Your task to perform on an android device: Add "razer kraken" to the cart on newegg.com Image 0: 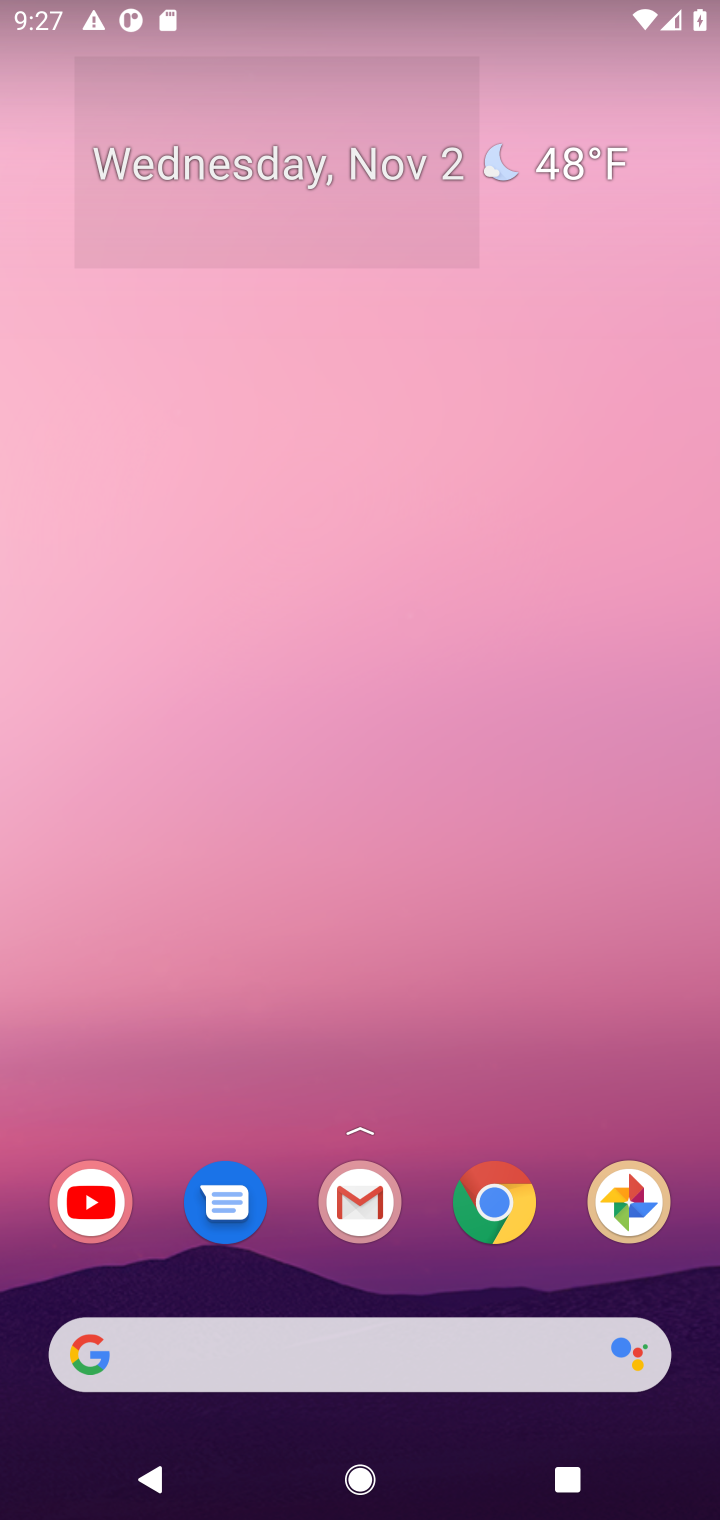
Step 0: drag from (410, 1310) to (575, 221)
Your task to perform on an android device: Add "razer kraken" to the cart on newegg.com Image 1: 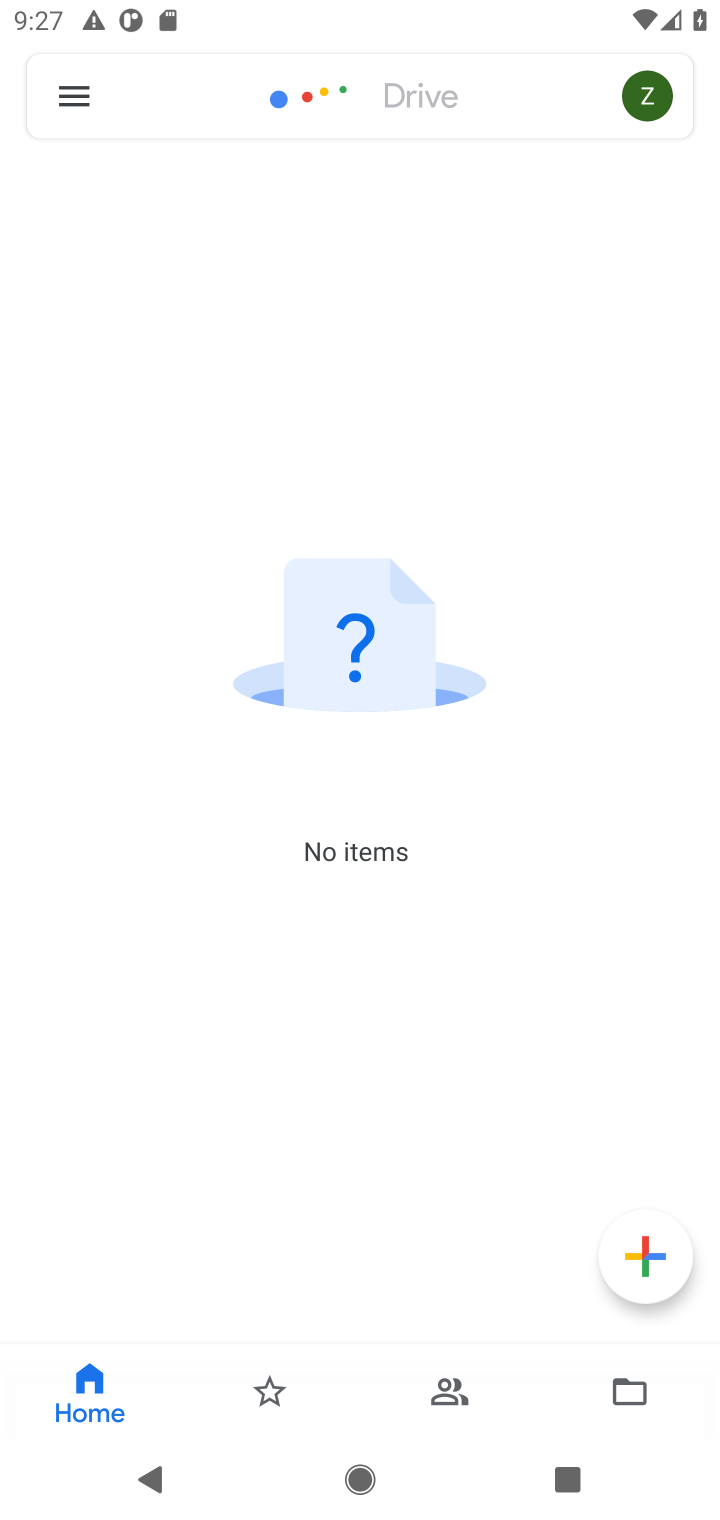
Step 1: press home button
Your task to perform on an android device: Add "razer kraken" to the cart on newegg.com Image 2: 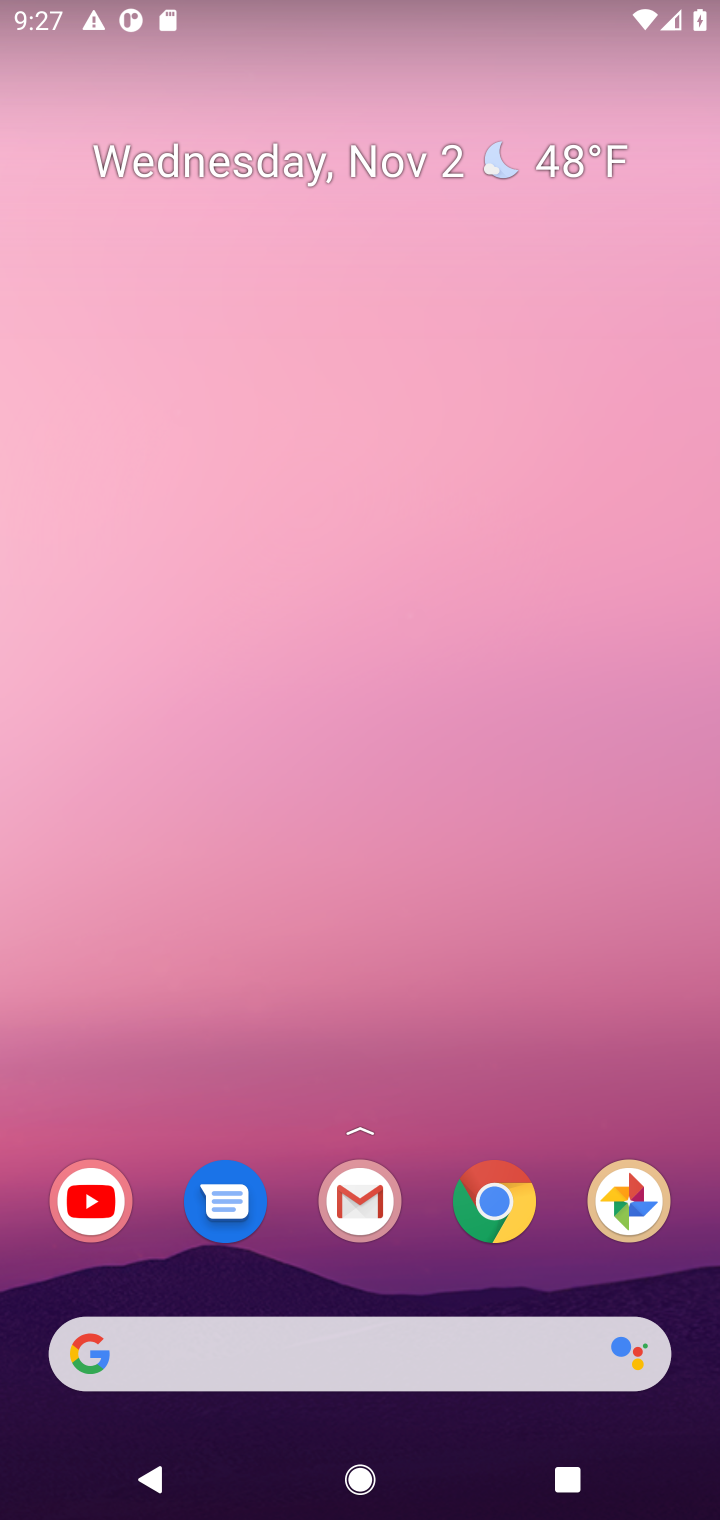
Step 2: drag from (442, 1255) to (385, 233)
Your task to perform on an android device: Add "razer kraken" to the cart on newegg.com Image 3: 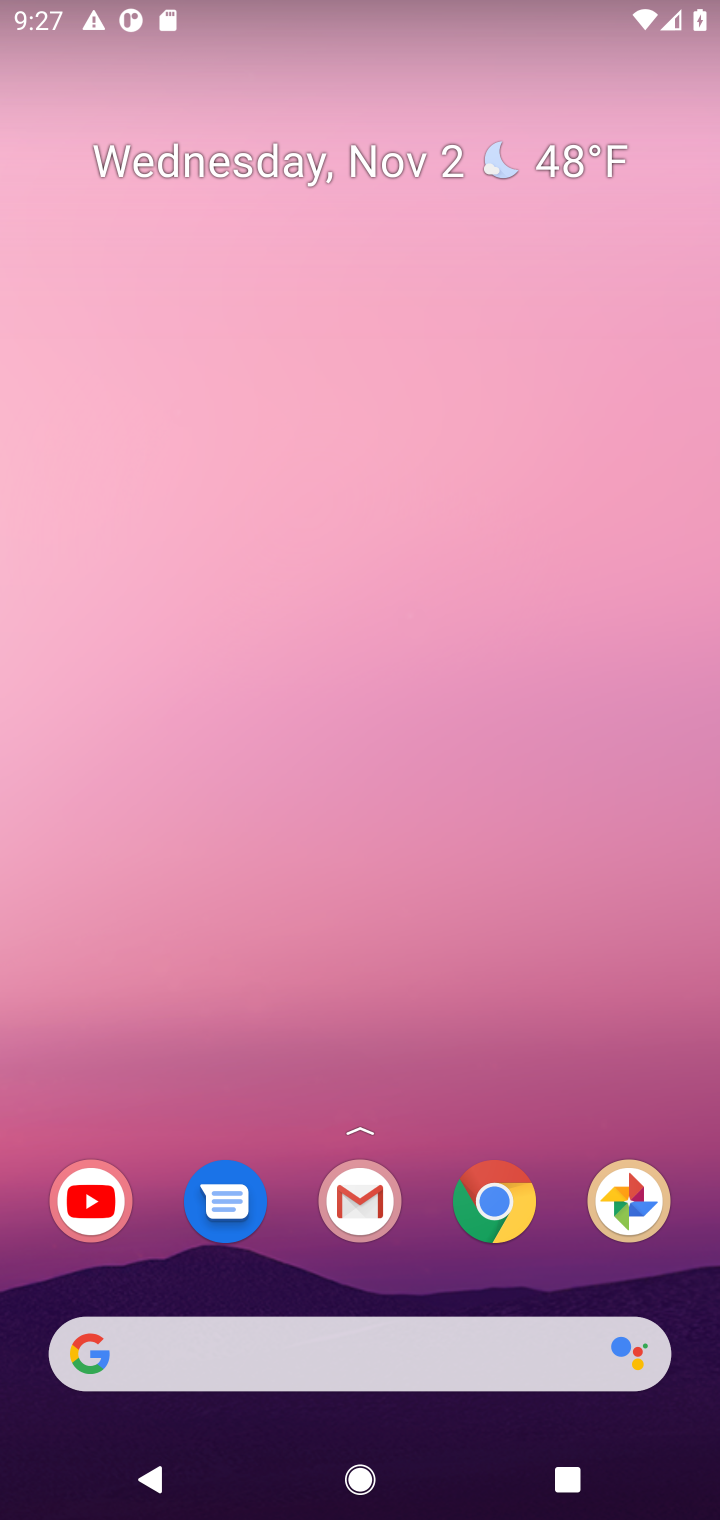
Step 3: drag from (428, 1290) to (408, 445)
Your task to perform on an android device: Add "razer kraken" to the cart on newegg.com Image 4: 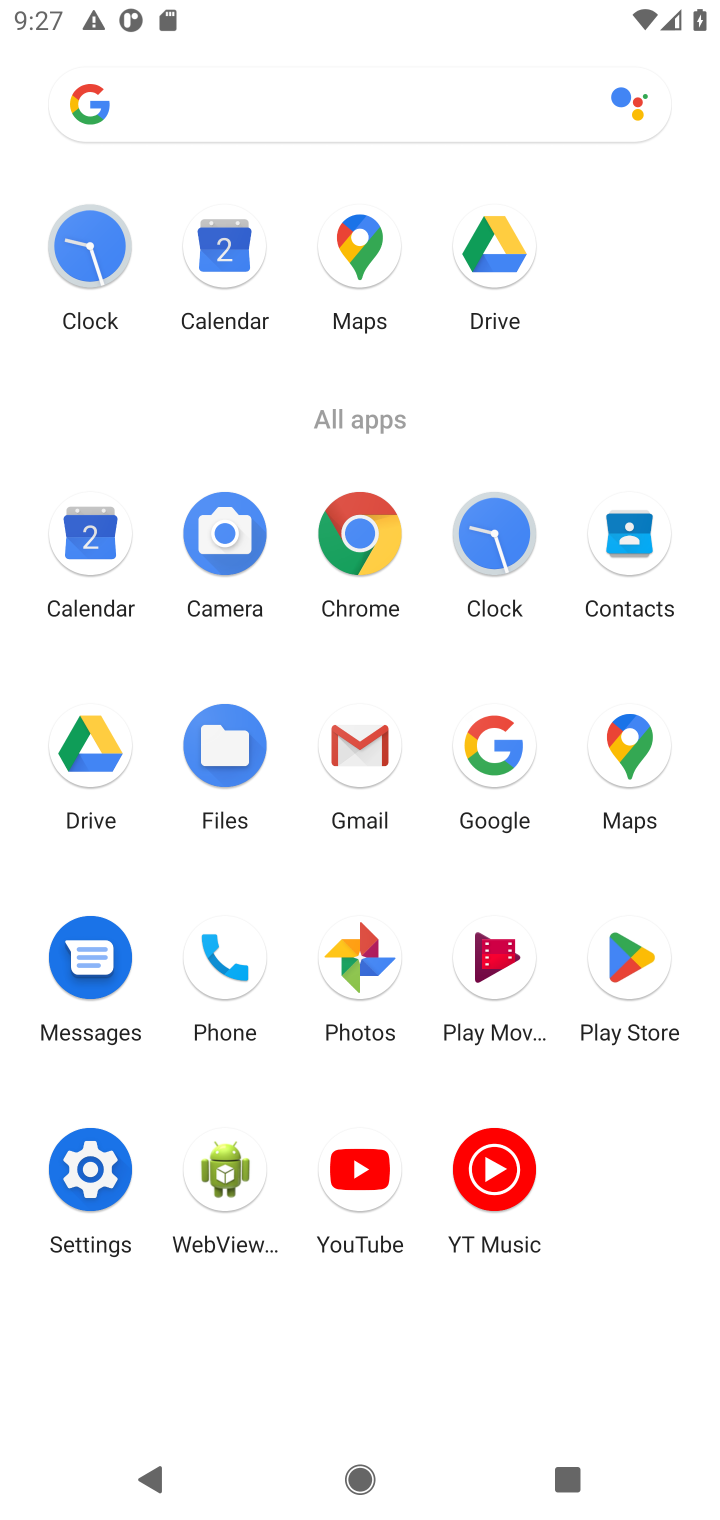
Step 4: click (354, 530)
Your task to perform on an android device: Add "razer kraken" to the cart on newegg.com Image 5: 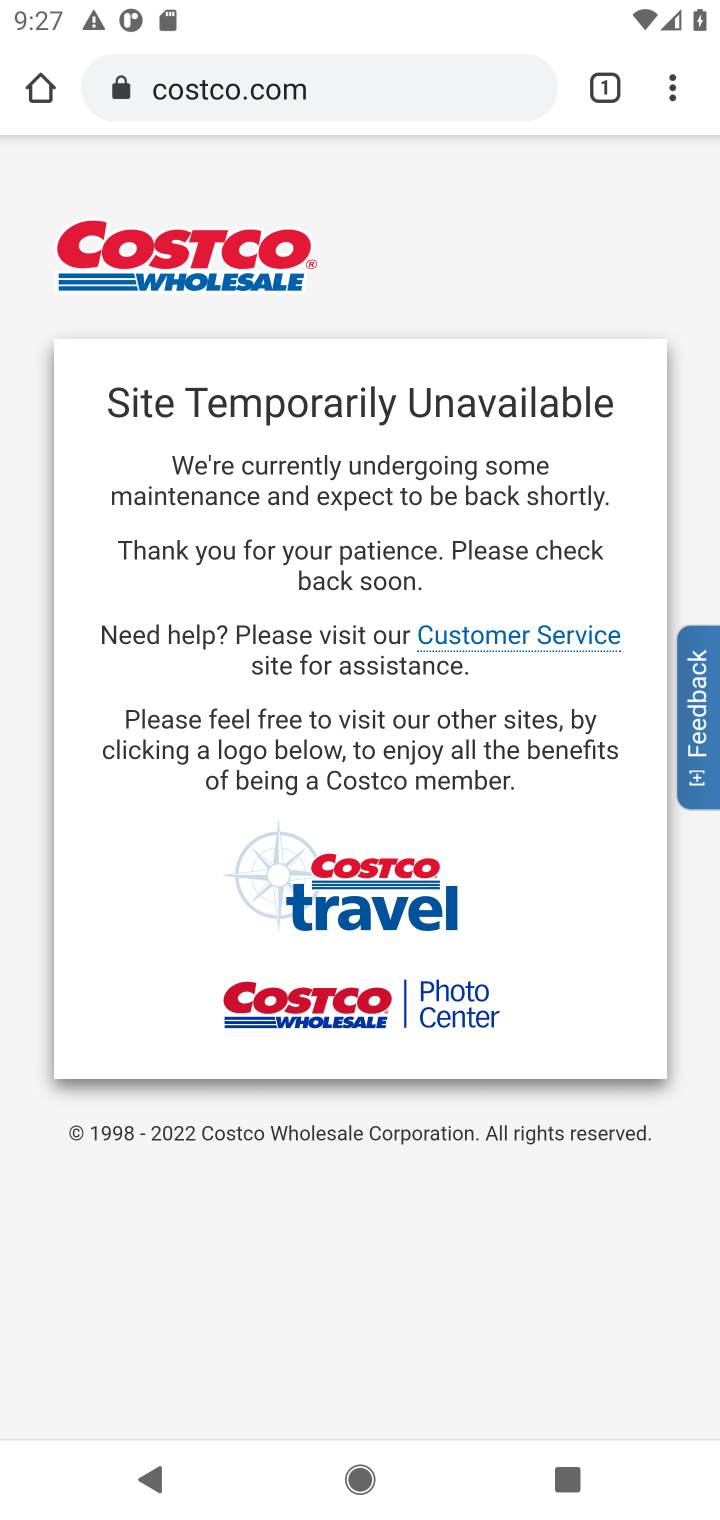
Step 5: click (383, 80)
Your task to perform on an android device: Add "razer kraken" to the cart on newegg.com Image 6: 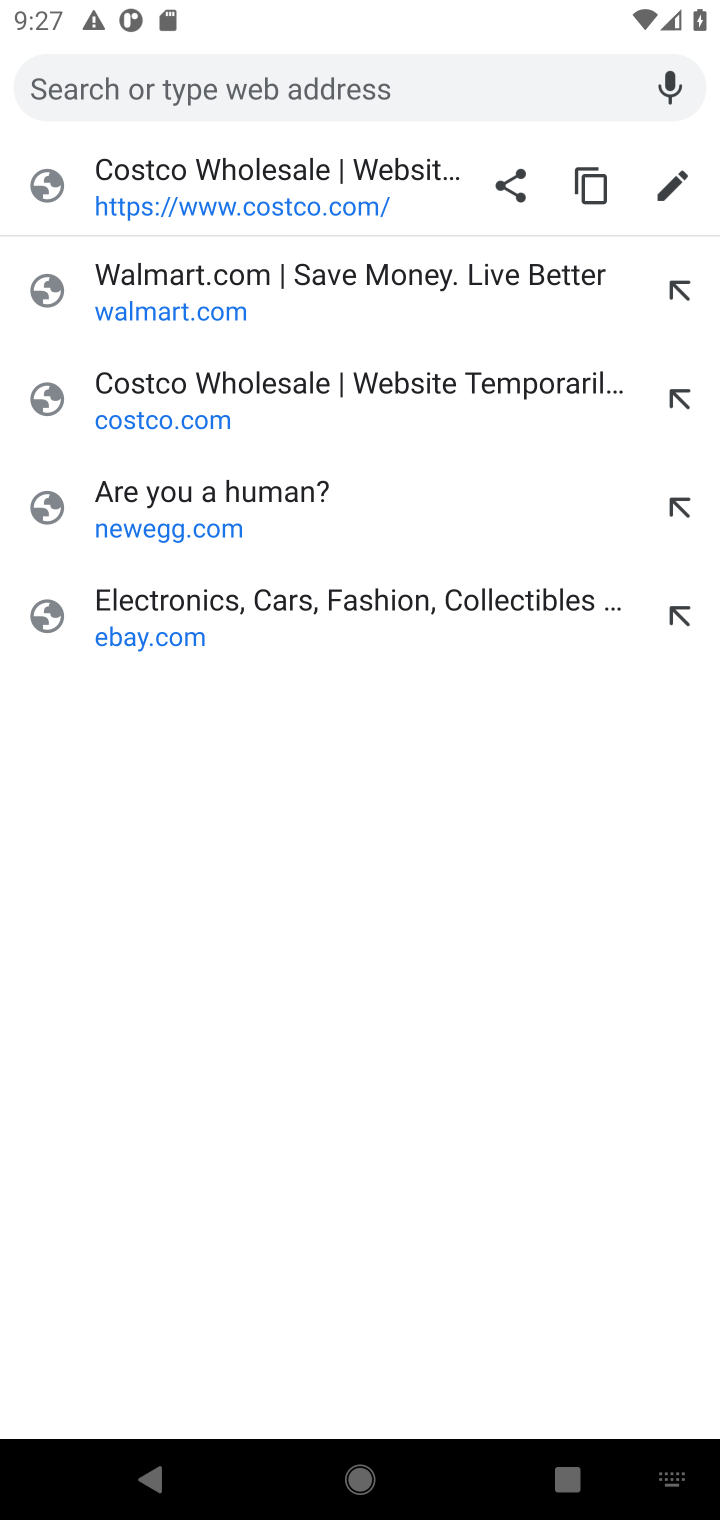
Step 6: type "newegg.com"
Your task to perform on an android device: Add "razer kraken" to the cart on newegg.com Image 7: 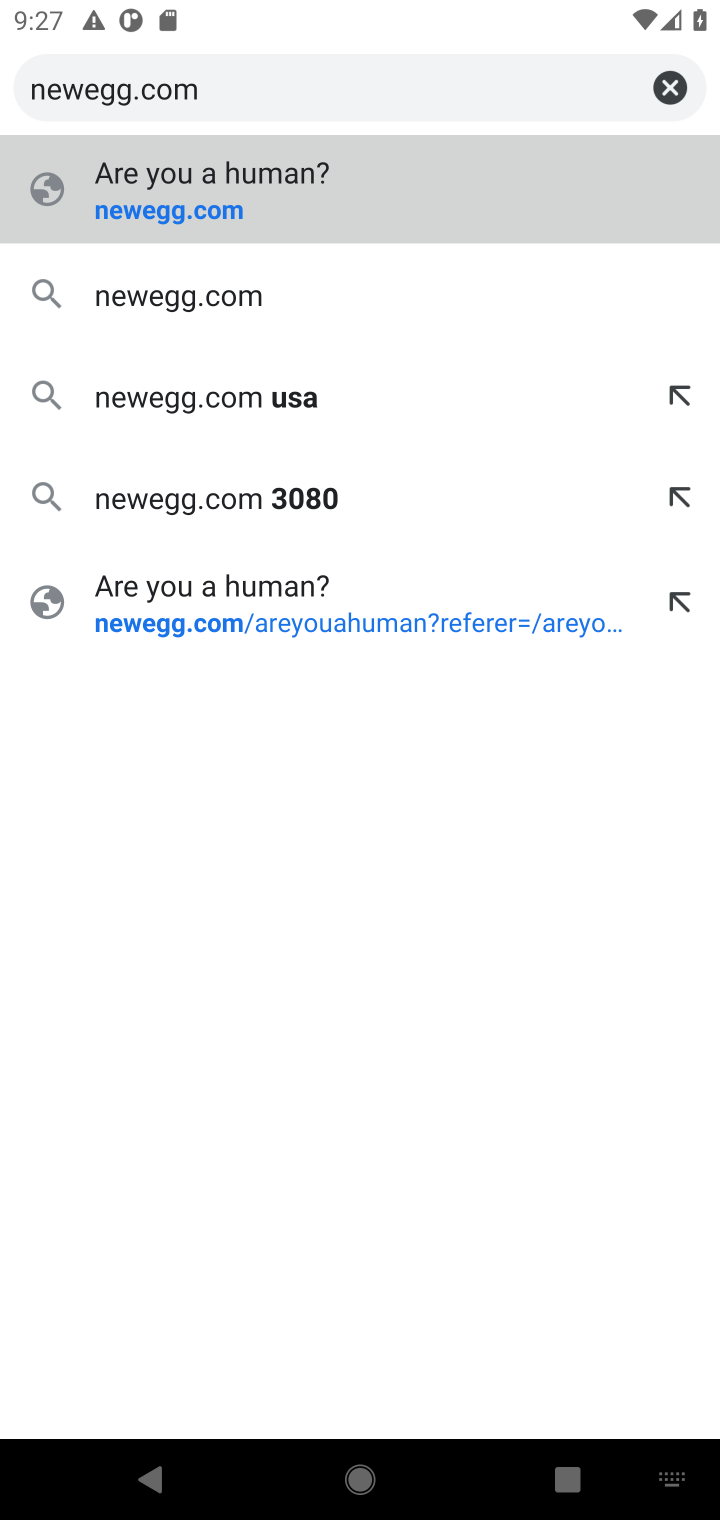
Step 7: press enter
Your task to perform on an android device: Add "razer kraken" to the cart on newegg.com Image 8: 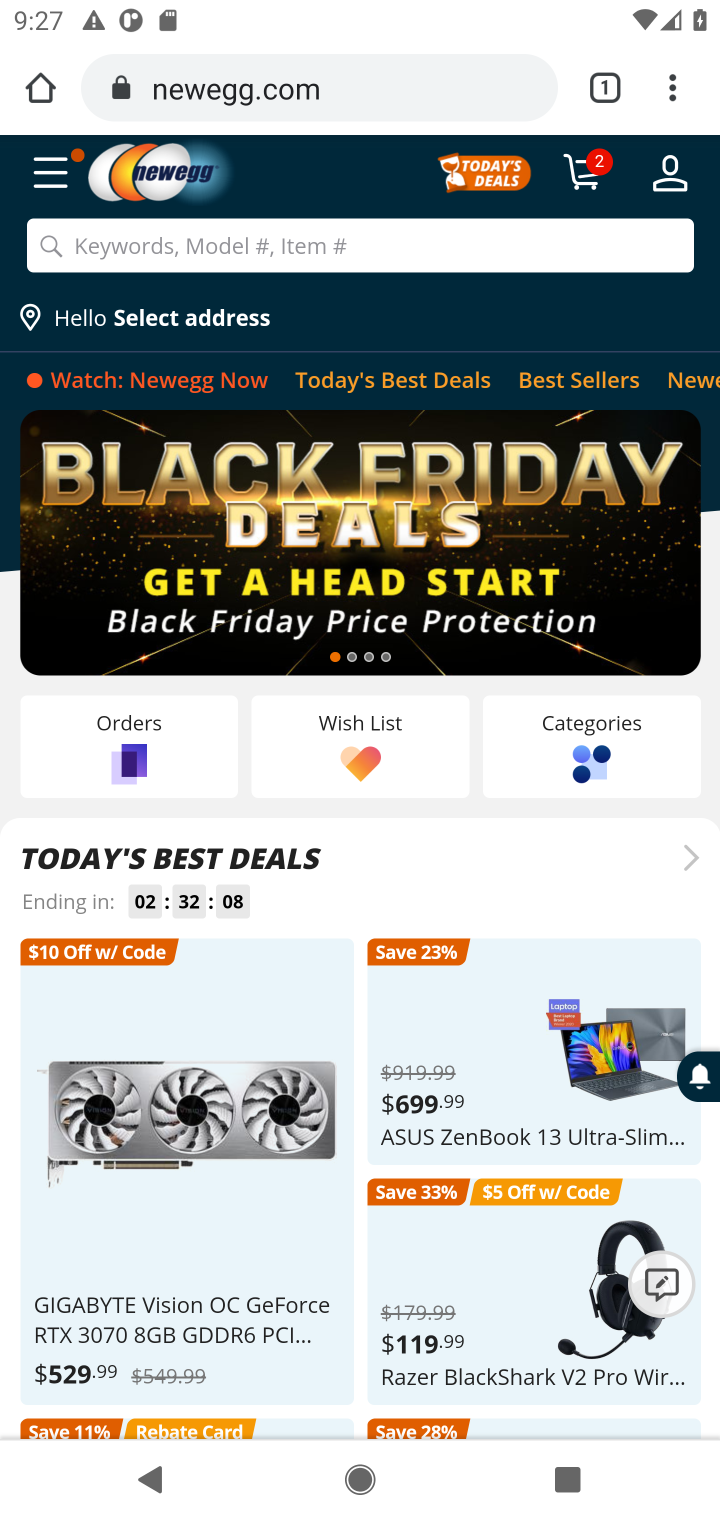
Step 8: click (463, 244)
Your task to perform on an android device: Add "razer kraken" to the cart on newegg.com Image 9: 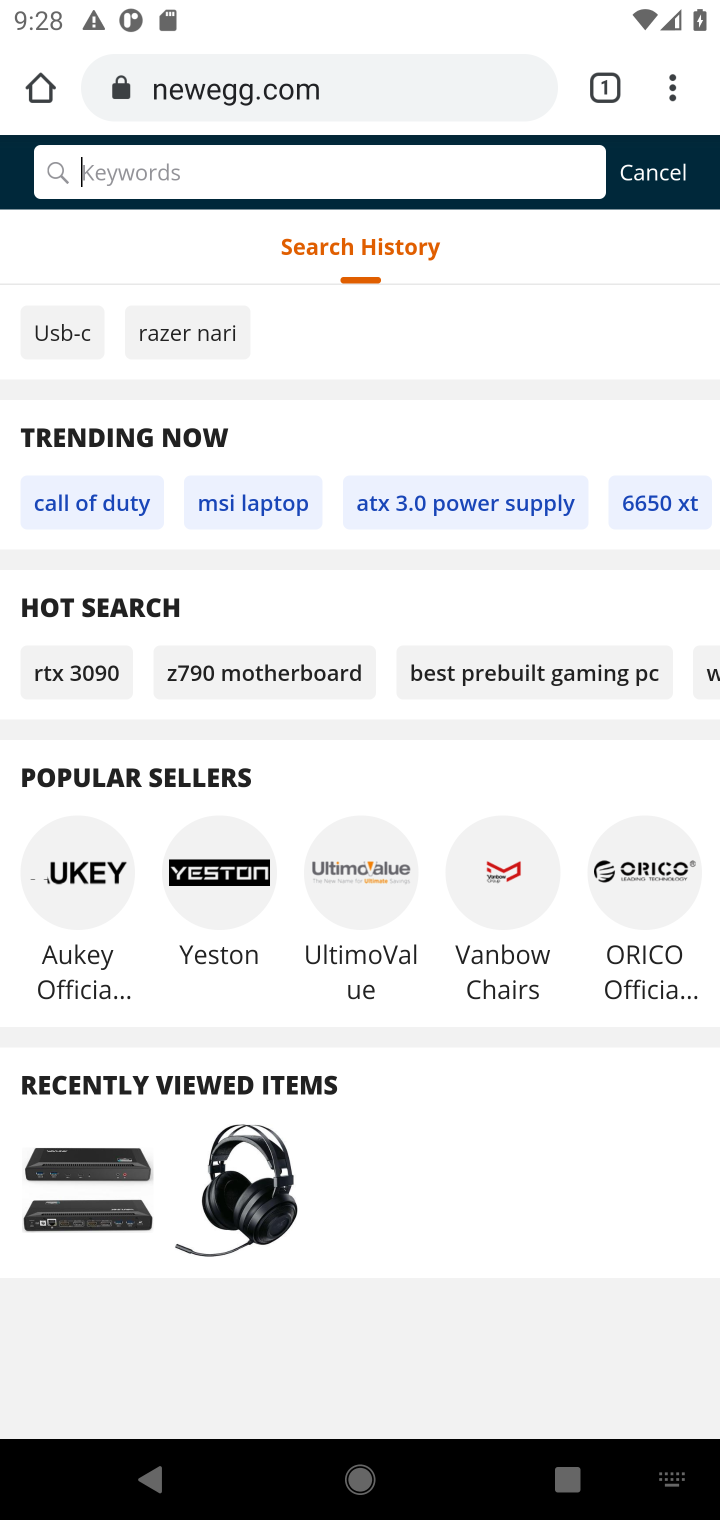
Step 9: type "razer kraken"
Your task to perform on an android device: Add "razer kraken" to the cart on newegg.com Image 10: 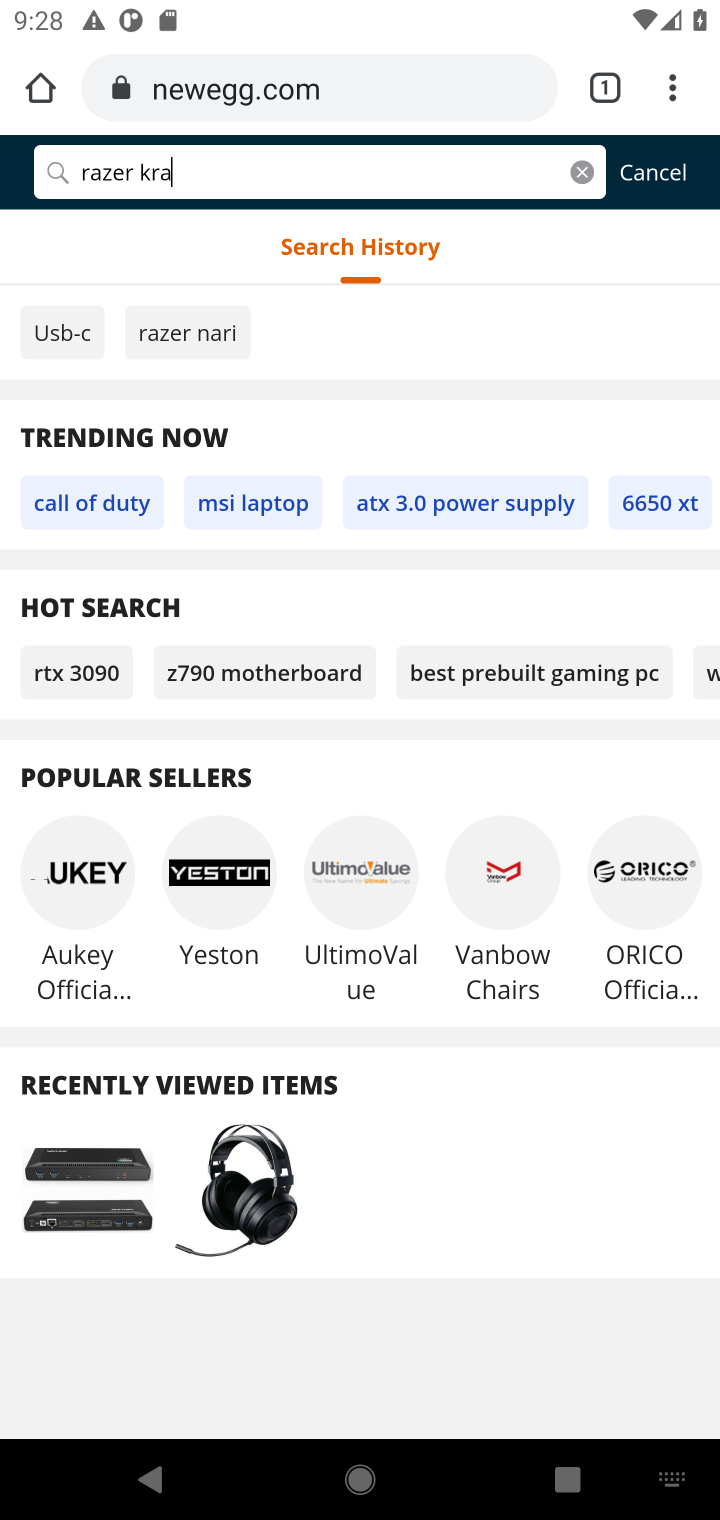
Step 10: press enter
Your task to perform on an android device: Add "razer kraken" to the cart on newegg.com Image 11: 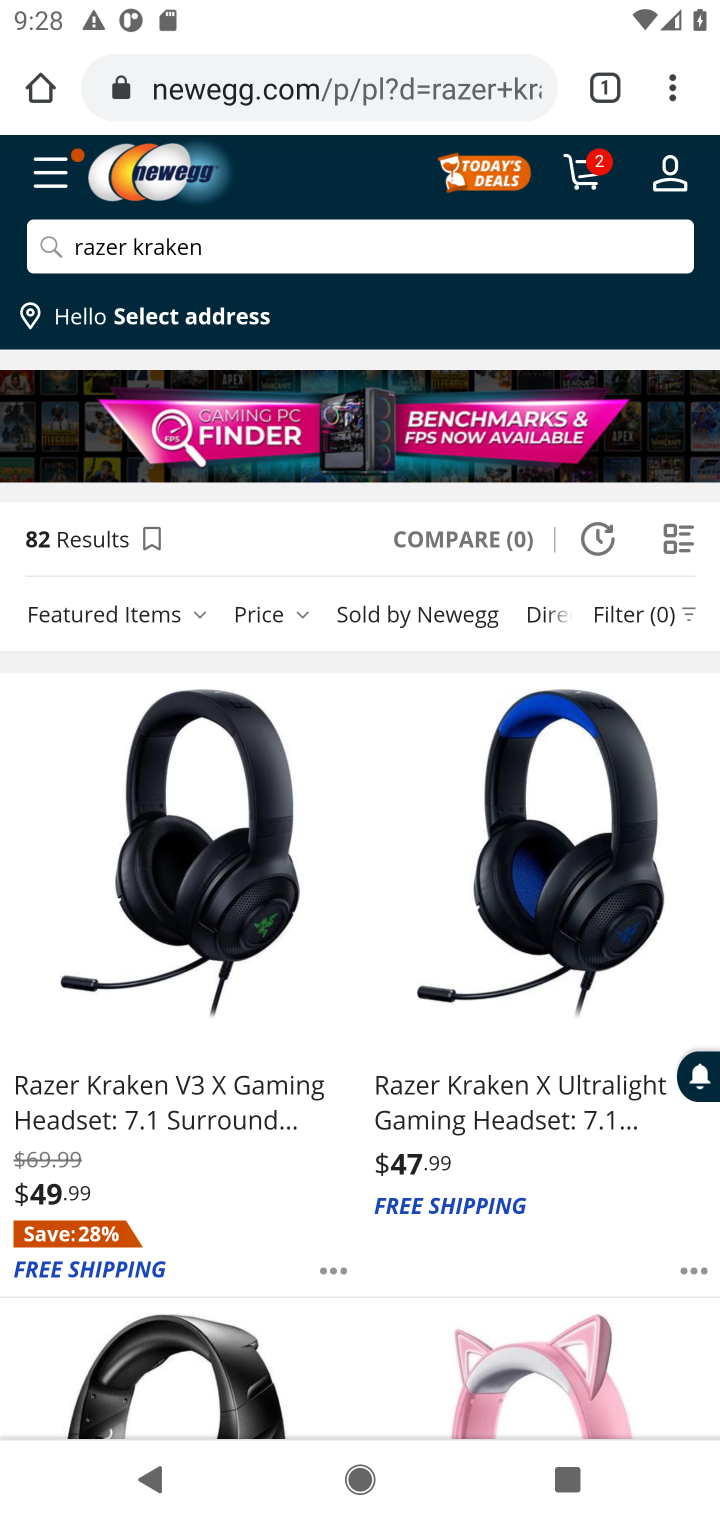
Step 11: click (226, 883)
Your task to perform on an android device: Add "razer kraken" to the cart on newegg.com Image 12: 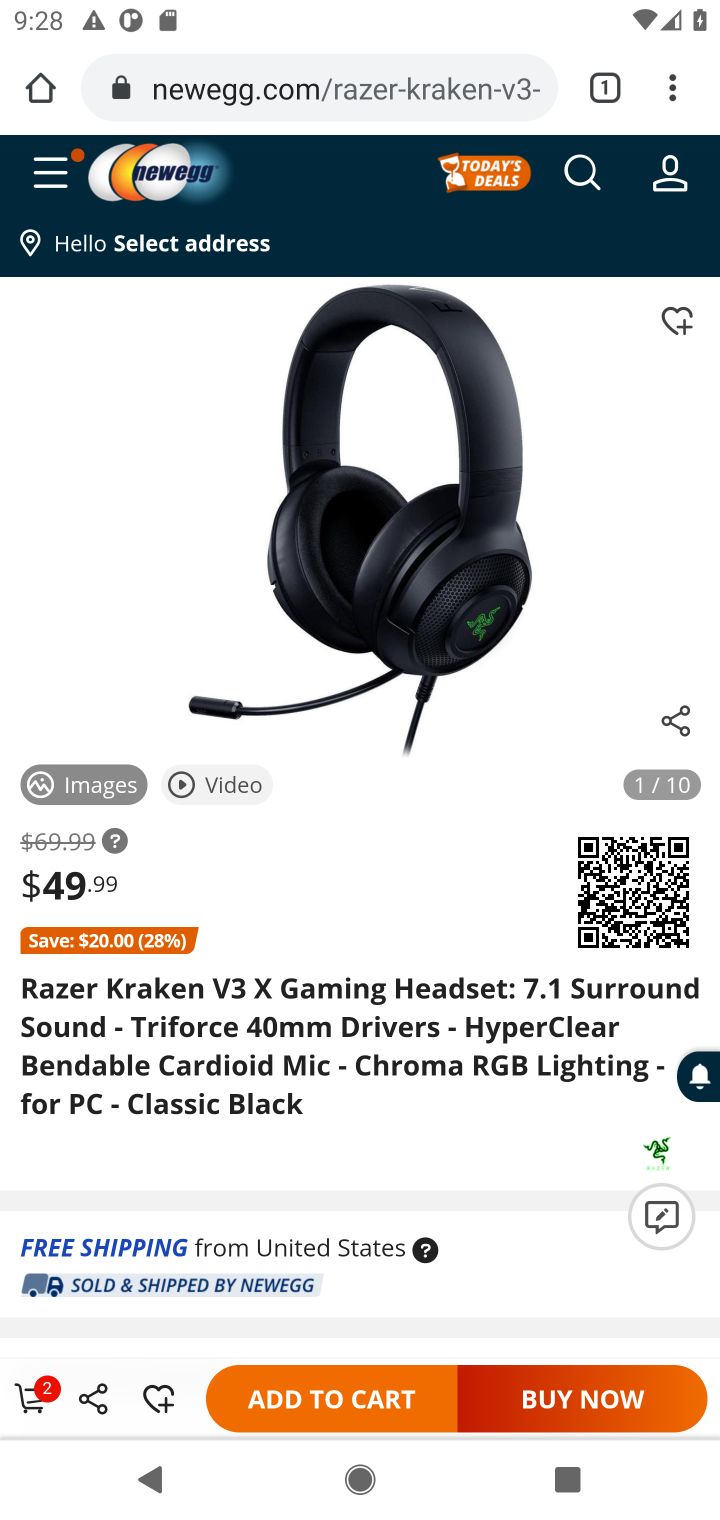
Step 12: click (356, 1404)
Your task to perform on an android device: Add "razer kraken" to the cart on newegg.com Image 13: 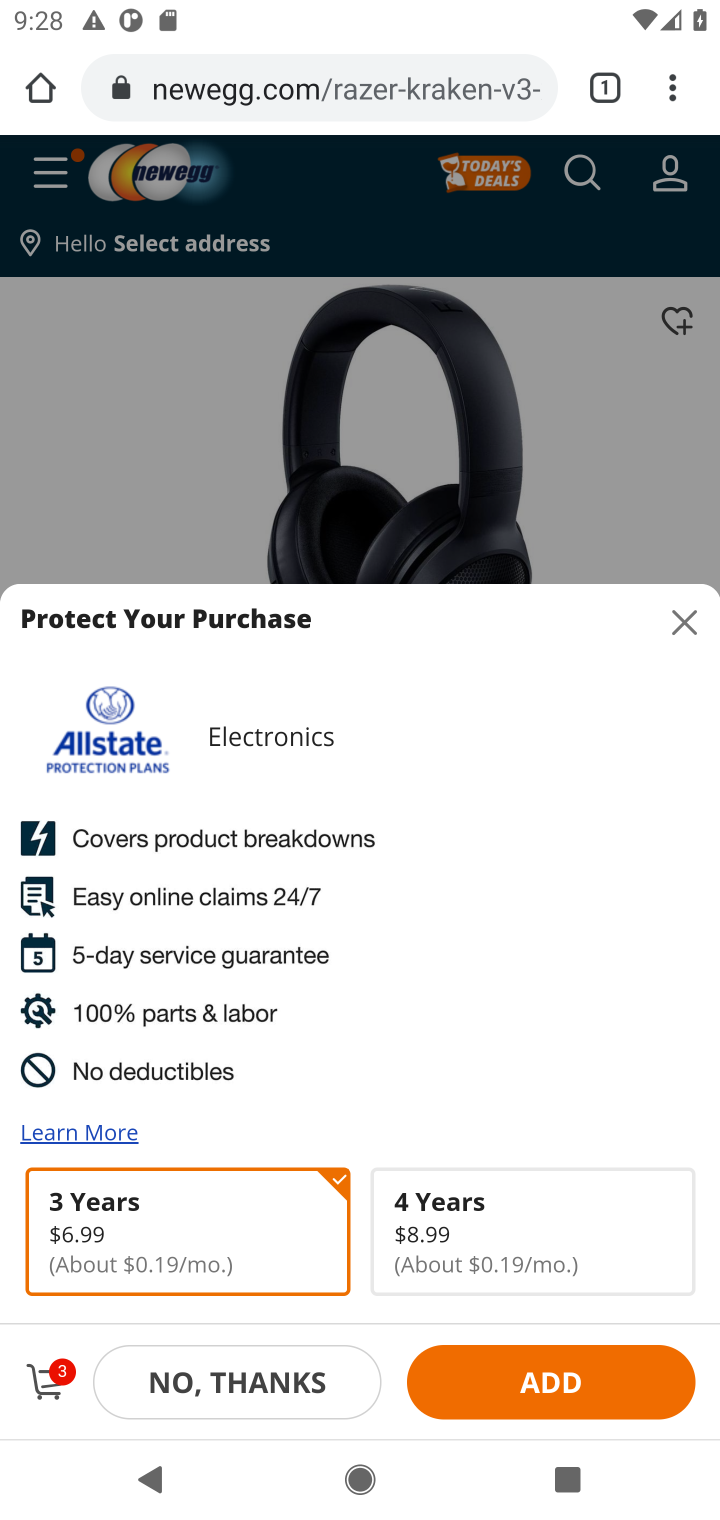
Step 13: task complete